Your task to perform on an android device: Go to accessibility settings Image 0: 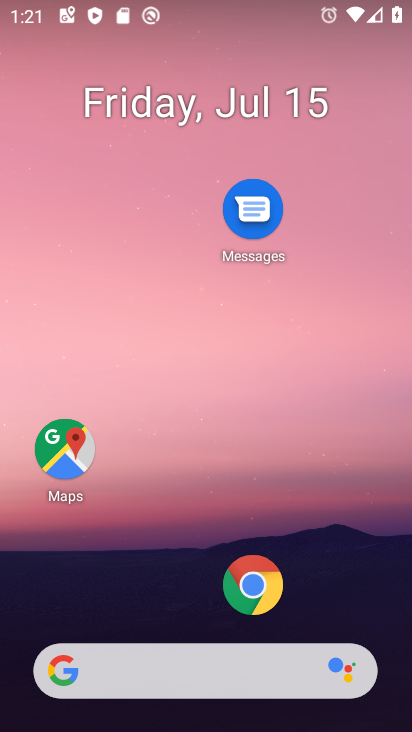
Step 0: press home button
Your task to perform on an android device: Go to accessibility settings Image 1: 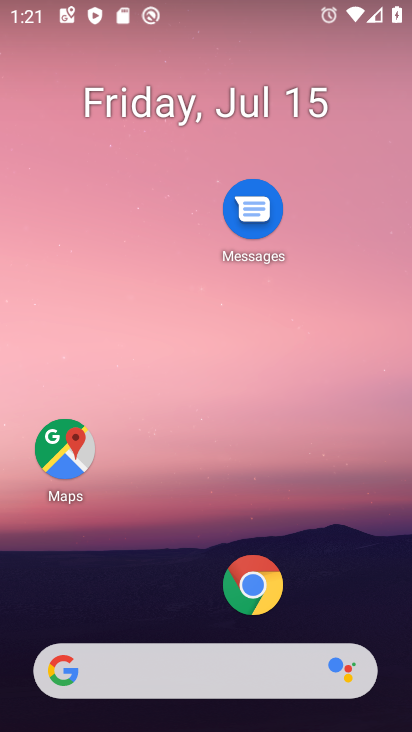
Step 1: drag from (162, 676) to (303, 114)
Your task to perform on an android device: Go to accessibility settings Image 2: 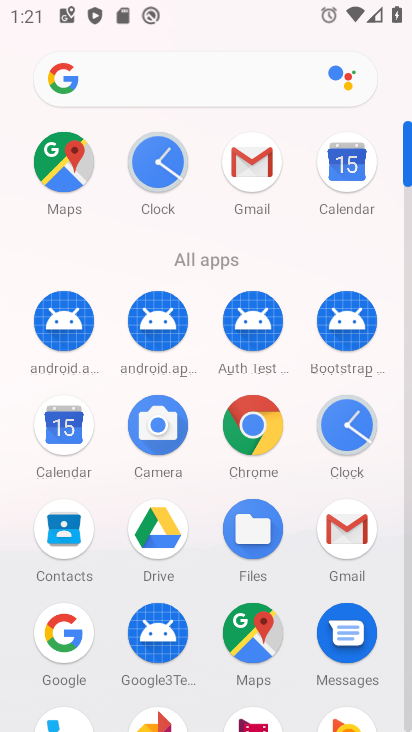
Step 2: drag from (217, 583) to (305, 107)
Your task to perform on an android device: Go to accessibility settings Image 3: 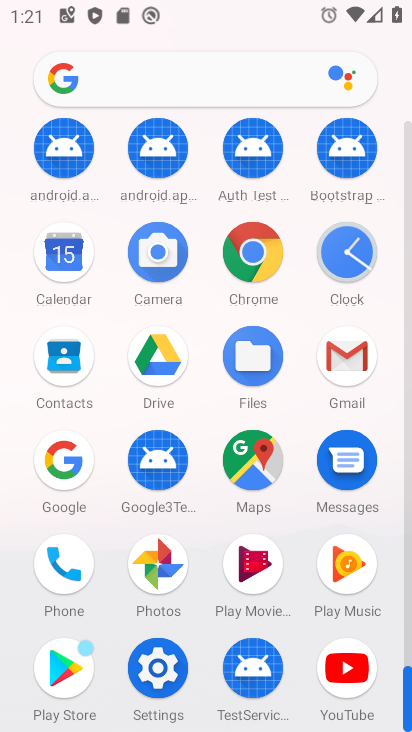
Step 3: click (159, 665)
Your task to perform on an android device: Go to accessibility settings Image 4: 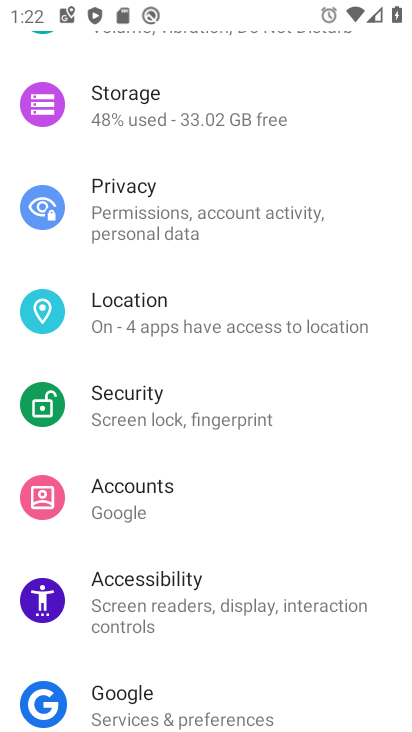
Step 4: click (187, 585)
Your task to perform on an android device: Go to accessibility settings Image 5: 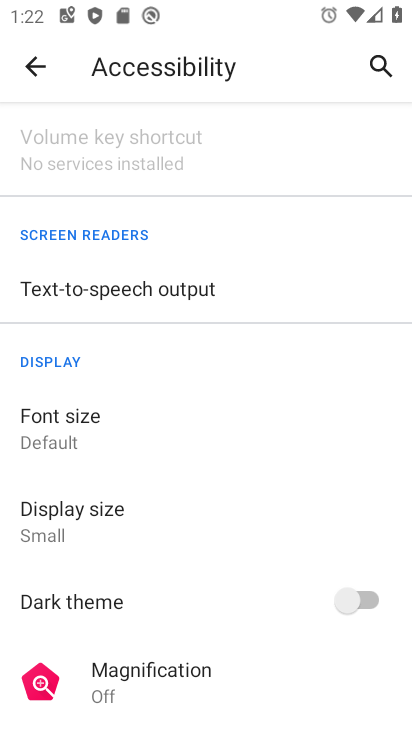
Step 5: task complete